Your task to perform on an android device: turn on bluetooth scan Image 0: 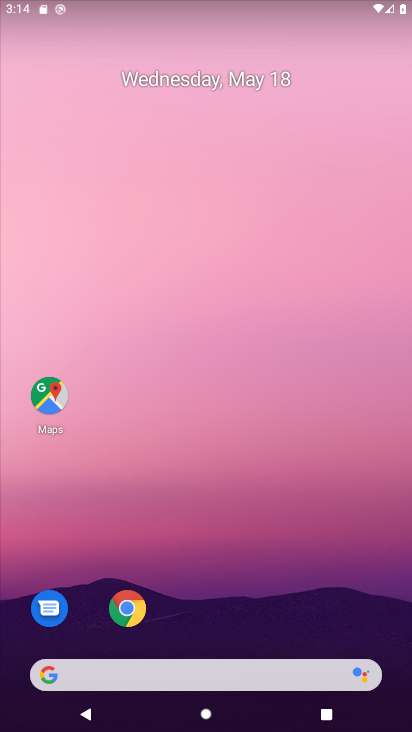
Step 0: drag from (190, 695) to (307, 6)
Your task to perform on an android device: turn on bluetooth scan Image 1: 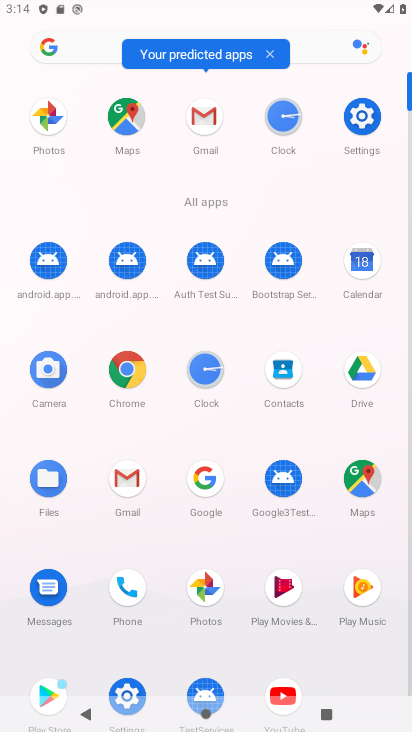
Step 1: click (355, 127)
Your task to perform on an android device: turn on bluetooth scan Image 2: 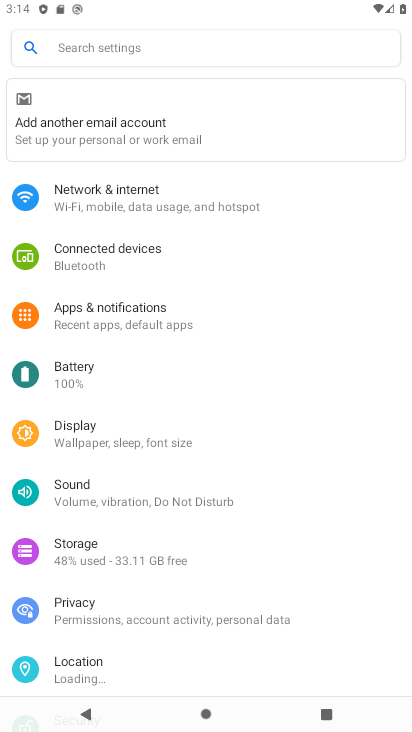
Step 2: click (158, 320)
Your task to perform on an android device: turn on bluetooth scan Image 3: 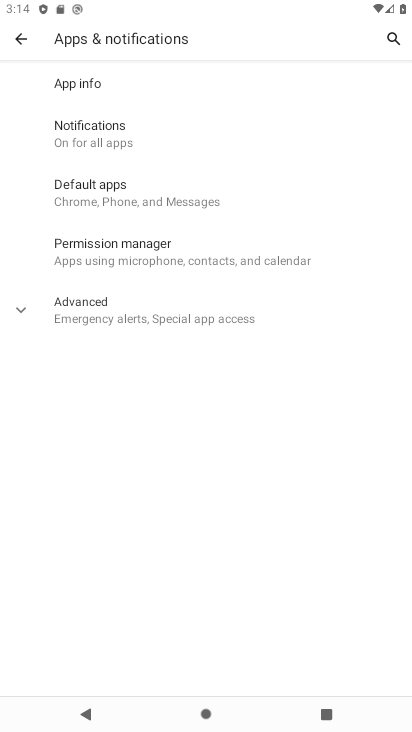
Step 3: press back button
Your task to perform on an android device: turn on bluetooth scan Image 4: 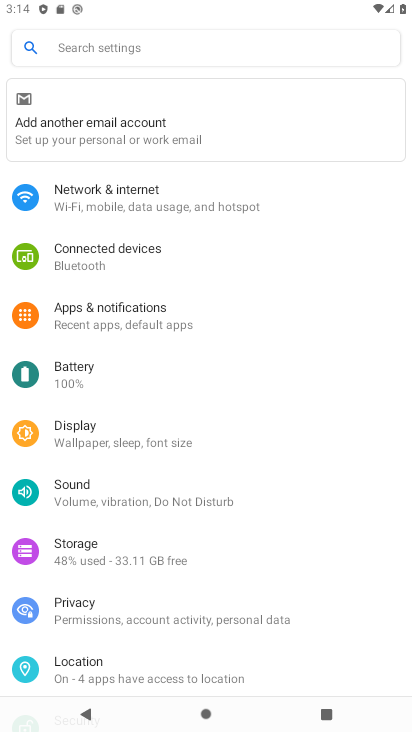
Step 4: click (248, 669)
Your task to perform on an android device: turn on bluetooth scan Image 5: 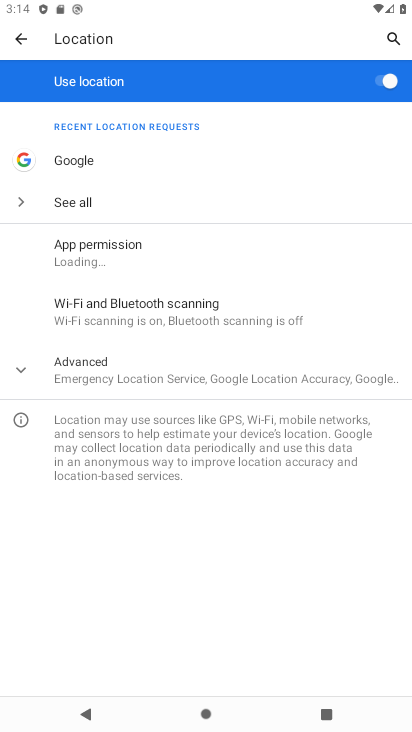
Step 5: click (283, 307)
Your task to perform on an android device: turn on bluetooth scan Image 6: 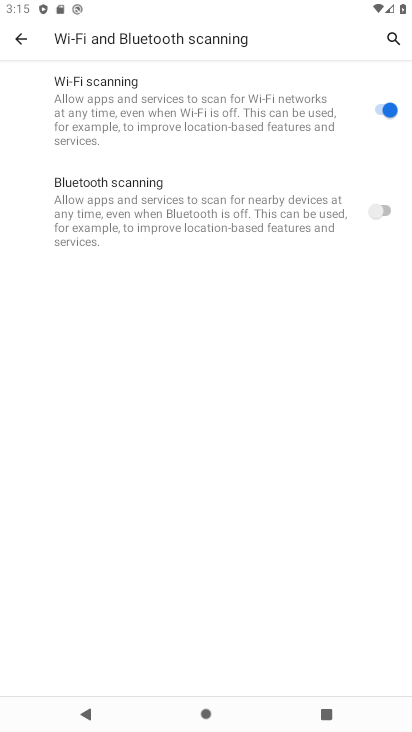
Step 6: click (386, 212)
Your task to perform on an android device: turn on bluetooth scan Image 7: 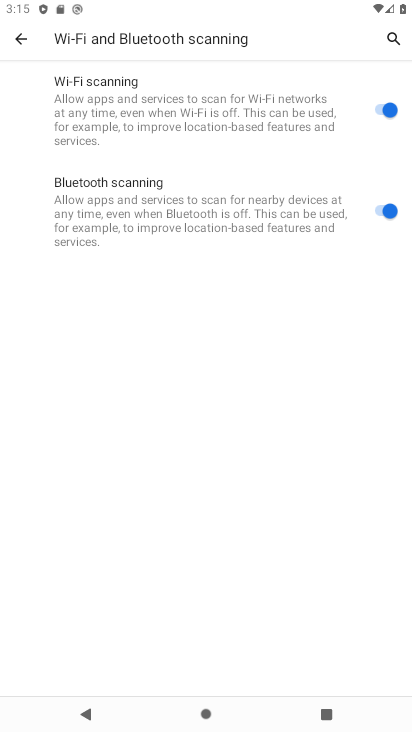
Step 7: task complete